Your task to perform on an android device: change timer sound Image 0: 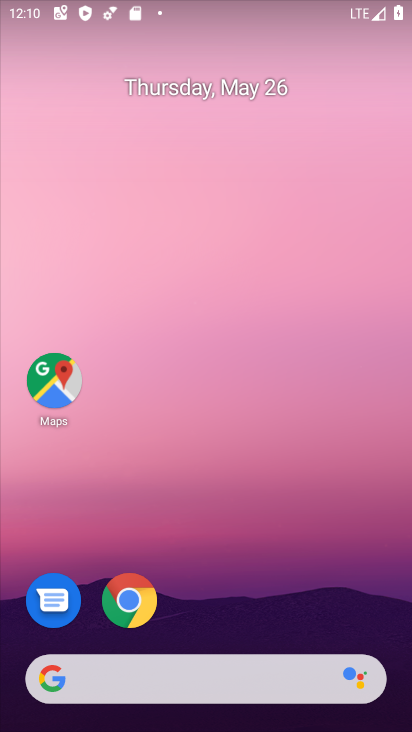
Step 0: drag from (273, 578) to (246, 105)
Your task to perform on an android device: change timer sound Image 1: 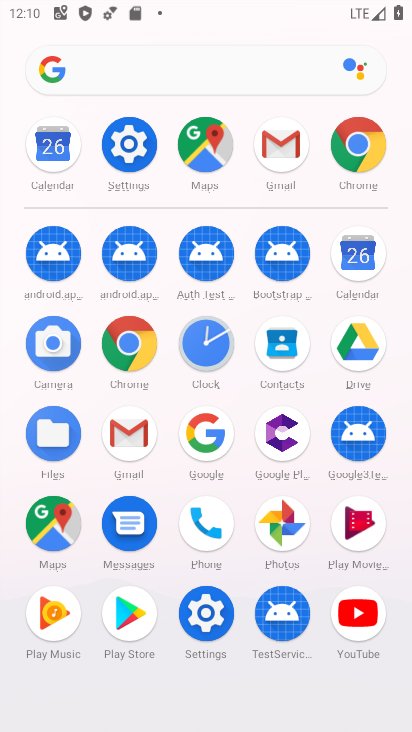
Step 1: click (208, 342)
Your task to perform on an android device: change timer sound Image 2: 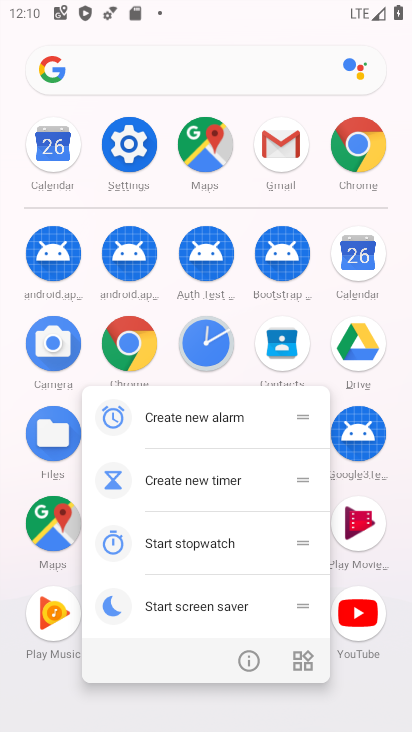
Step 2: click (203, 333)
Your task to perform on an android device: change timer sound Image 3: 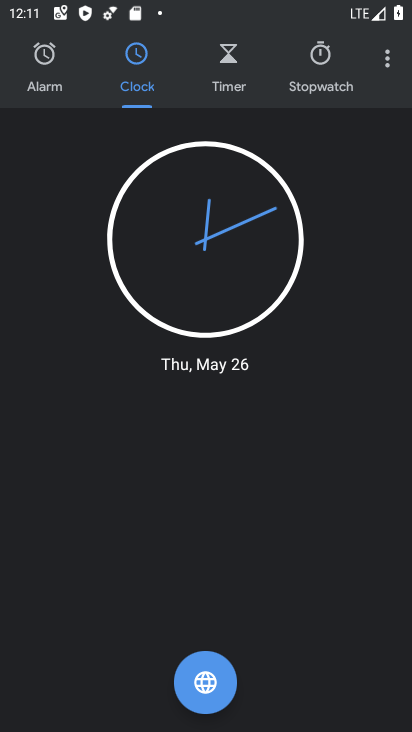
Step 3: click (380, 52)
Your task to perform on an android device: change timer sound Image 4: 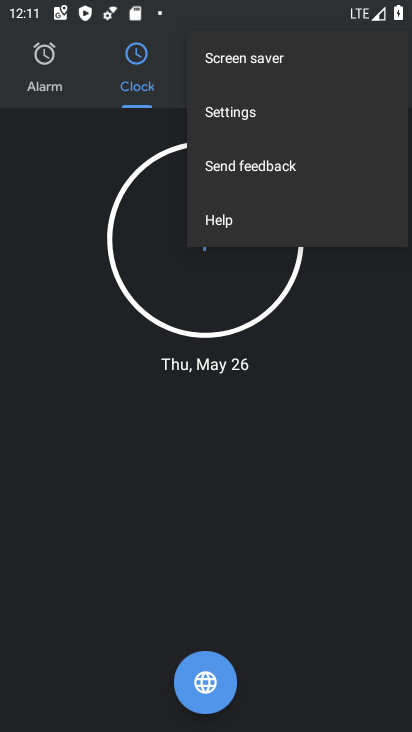
Step 4: click (262, 109)
Your task to perform on an android device: change timer sound Image 5: 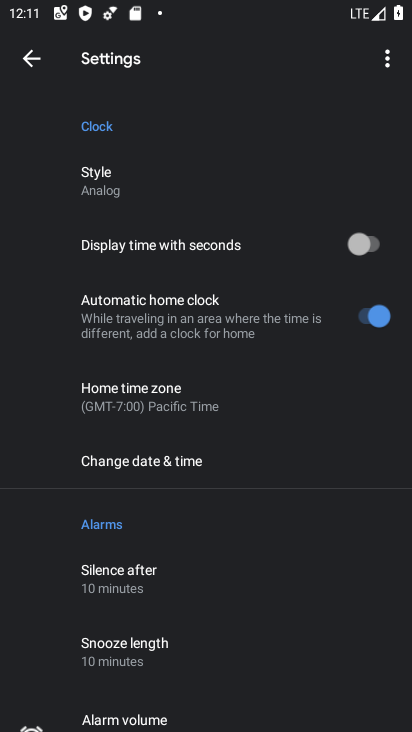
Step 5: drag from (171, 606) to (258, 168)
Your task to perform on an android device: change timer sound Image 6: 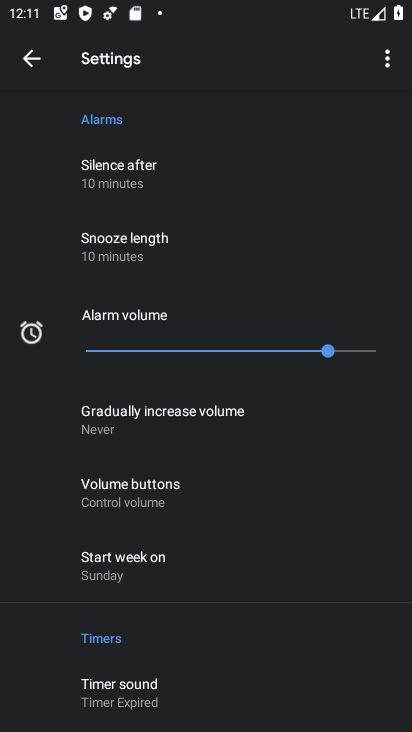
Step 6: drag from (197, 570) to (247, 223)
Your task to perform on an android device: change timer sound Image 7: 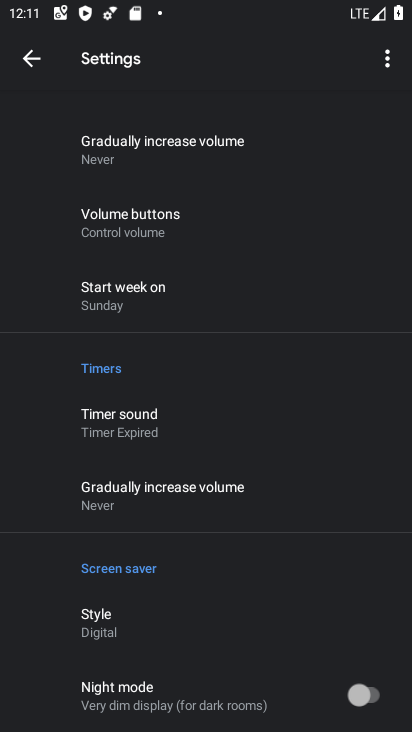
Step 7: click (149, 435)
Your task to perform on an android device: change timer sound Image 8: 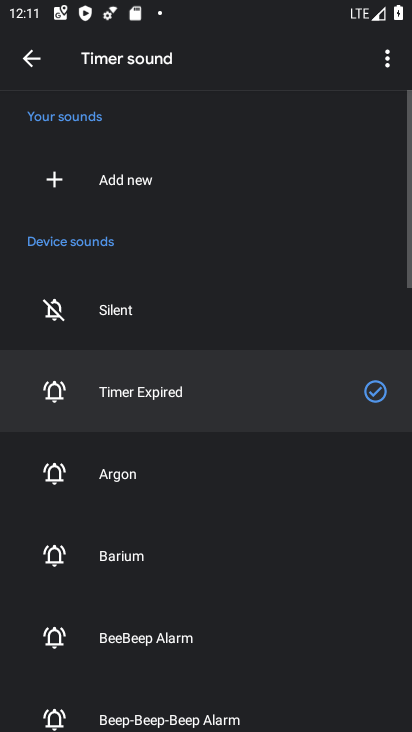
Step 8: click (140, 470)
Your task to perform on an android device: change timer sound Image 9: 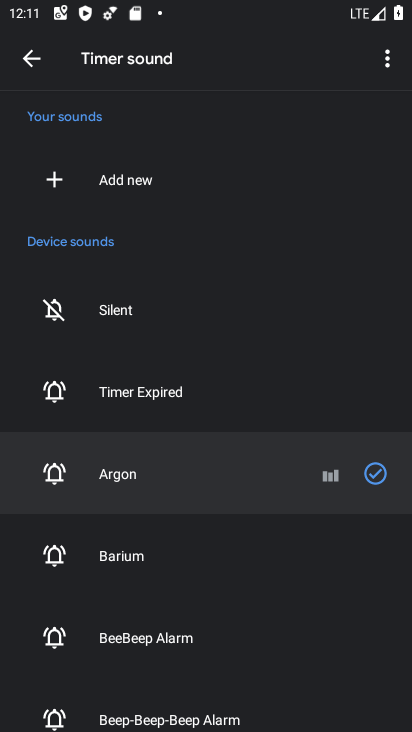
Step 9: task complete